Your task to perform on an android device: clear all cookies in the chrome app Image 0: 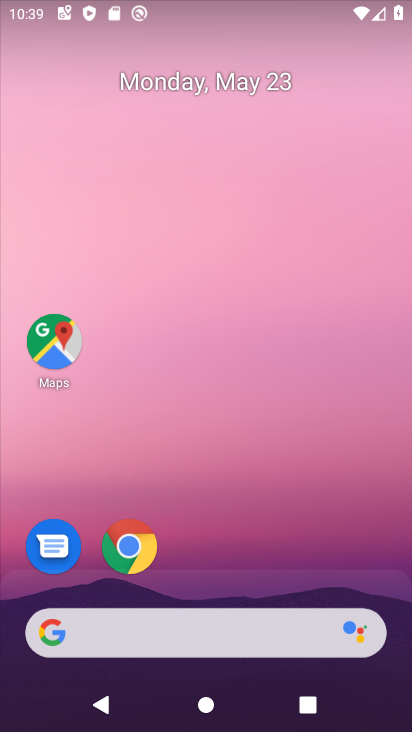
Step 0: click (127, 544)
Your task to perform on an android device: clear all cookies in the chrome app Image 1: 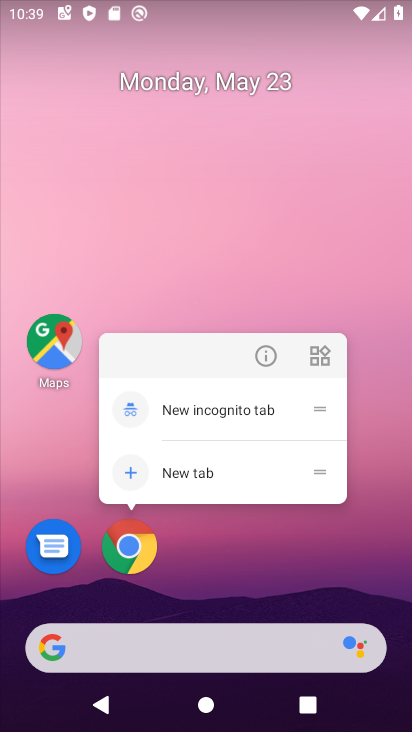
Step 1: click (148, 572)
Your task to perform on an android device: clear all cookies in the chrome app Image 2: 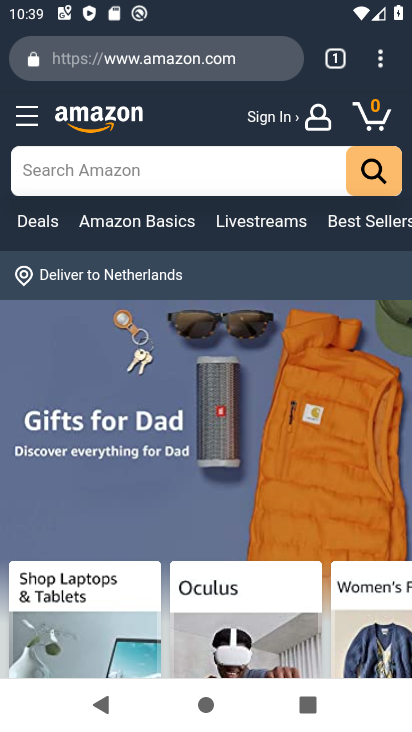
Step 2: drag from (386, 65) to (237, 580)
Your task to perform on an android device: clear all cookies in the chrome app Image 3: 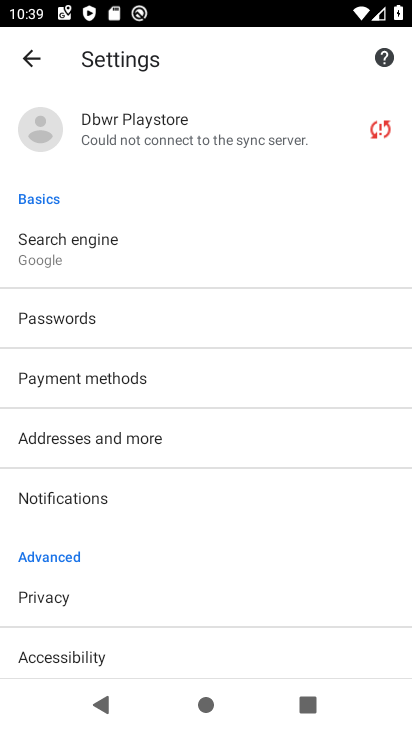
Step 3: drag from (189, 590) to (280, 337)
Your task to perform on an android device: clear all cookies in the chrome app Image 4: 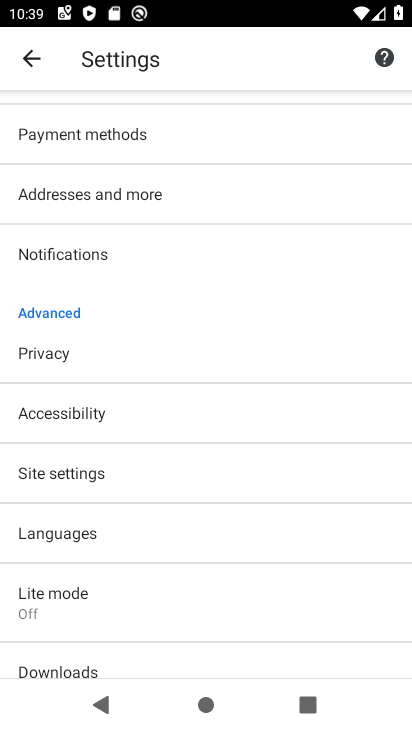
Step 4: click (102, 349)
Your task to perform on an android device: clear all cookies in the chrome app Image 5: 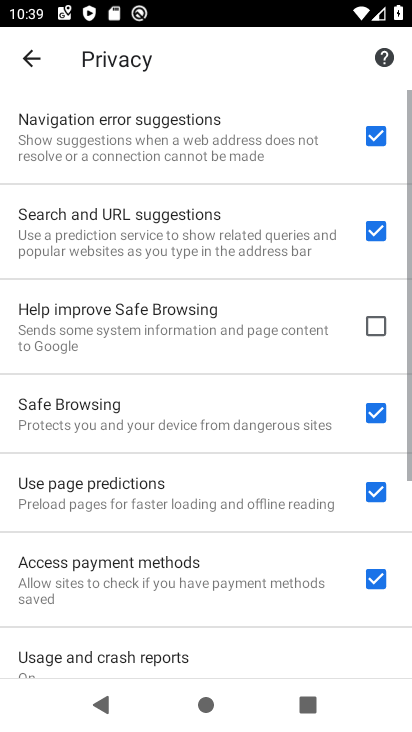
Step 5: drag from (168, 597) to (264, 157)
Your task to perform on an android device: clear all cookies in the chrome app Image 6: 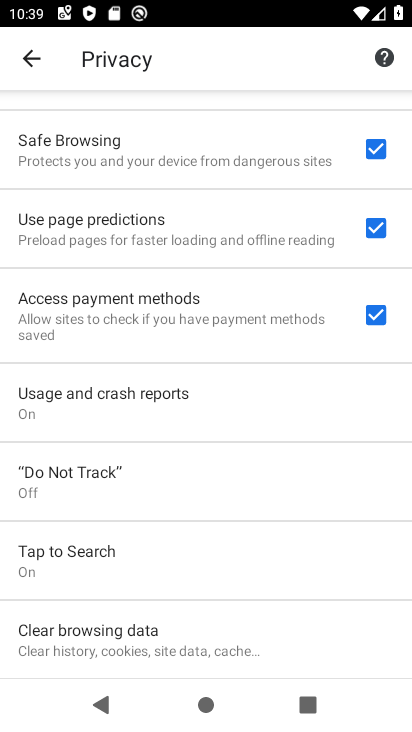
Step 6: click (162, 643)
Your task to perform on an android device: clear all cookies in the chrome app Image 7: 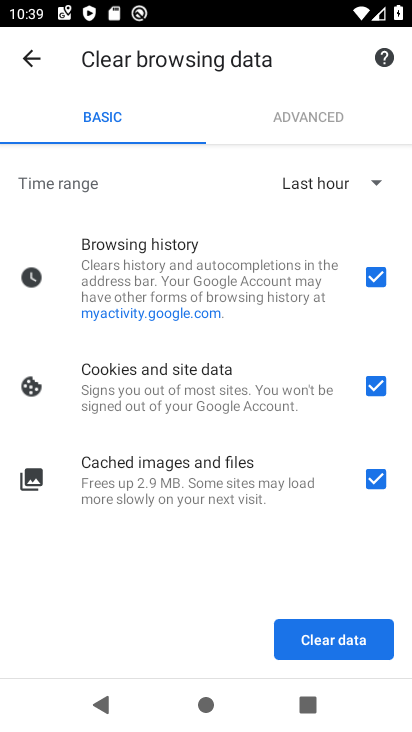
Step 7: click (371, 275)
Your task to perform on an android device: clear all cookies in the chrome app Image 8: 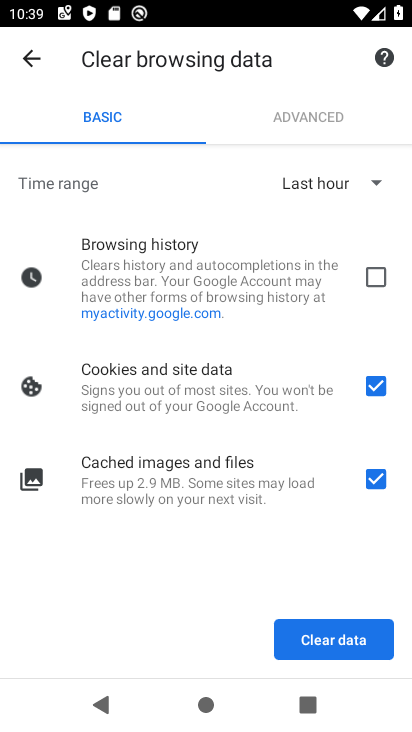
Step 8: click (375, 473)
Your task to perform on an android device: clear all cookies in the chrome app Image 9: 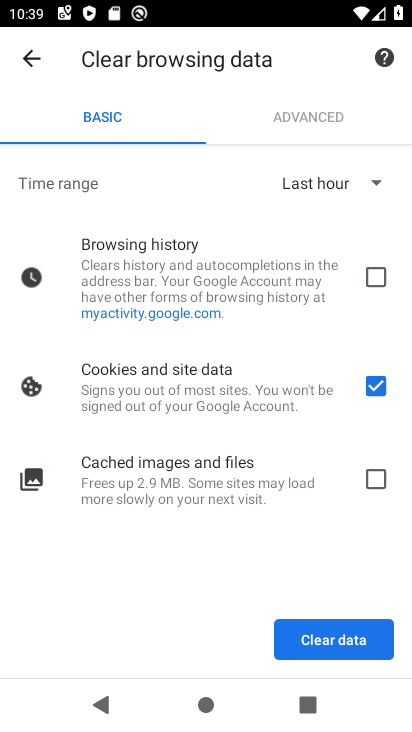
Step 9: click (361, 631)
Your task to perform on an android device: clear all cookies in the chrome app Image 10: 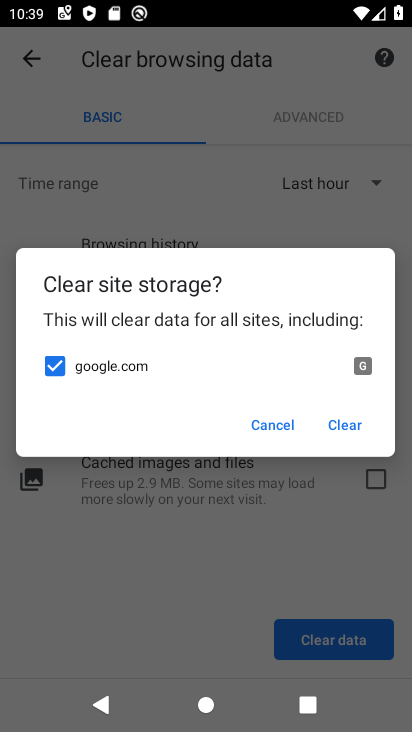
Step 10: click (362, 430)
Your task to perform on an android device: clear all cookies in the chrome app Image 11: 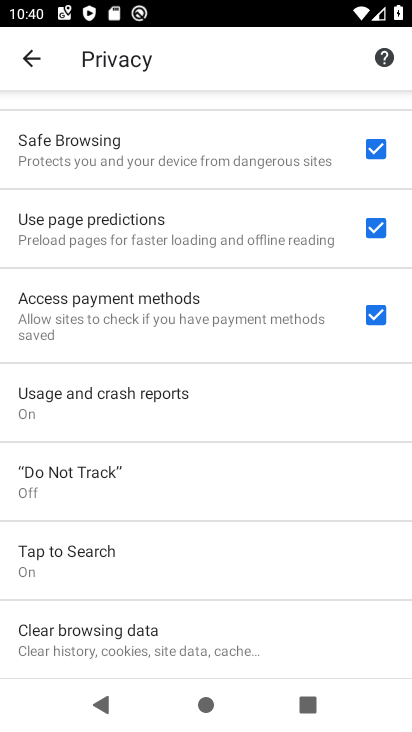
Step 11: task complete